Your task to perform on an android device: When is my next appointment? Image 0: 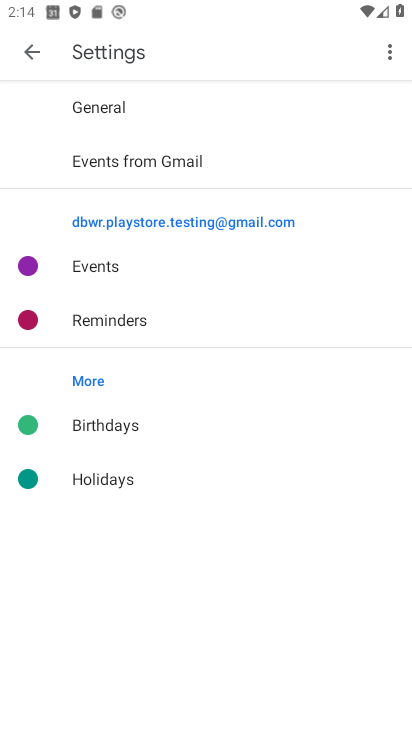
Step 0: press home button
Your task to perform on an android device: When is my next appointment? Image 1: 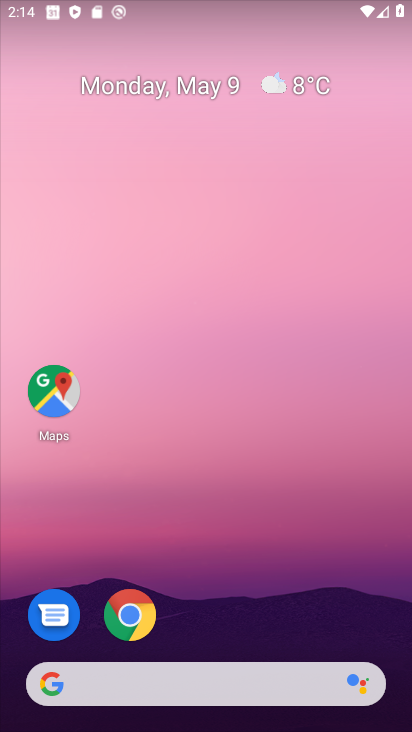
Step 1: drag from (321, 618) to (260, 204)
Your task to perform on an android device: When is my next appointment? Image 2: 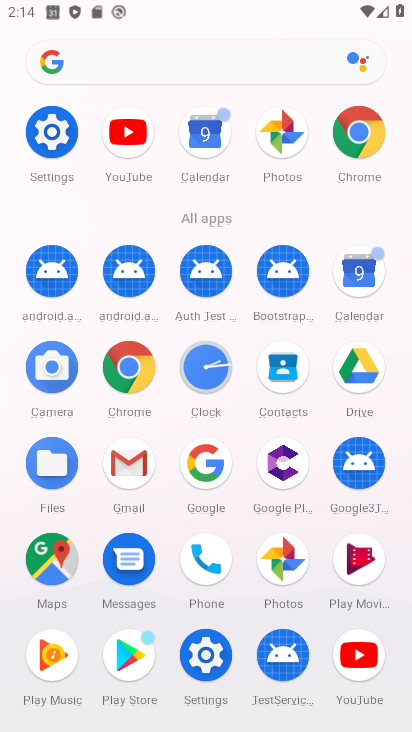
Step 2: click (206, 126)
Your task to perform on an android device: When is my next appointment? Image 3: 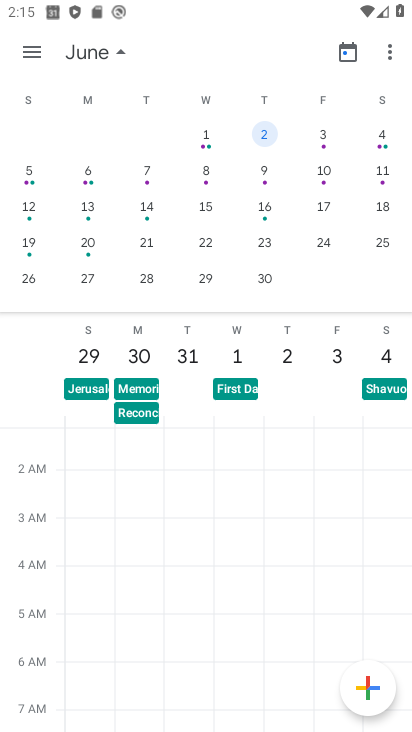
Step 3: click (34, 62)
Your task to perform on an android device: When is my next appointment? Image 4: 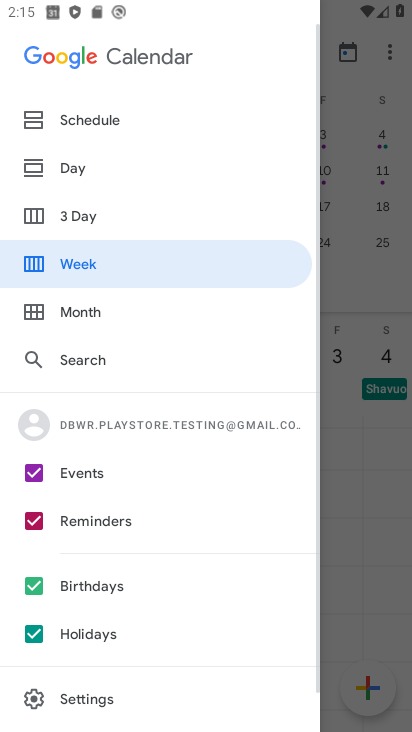
Step 4: click (98, 114)
Your task to perform on an android device: When is my next appointment? Image 5: 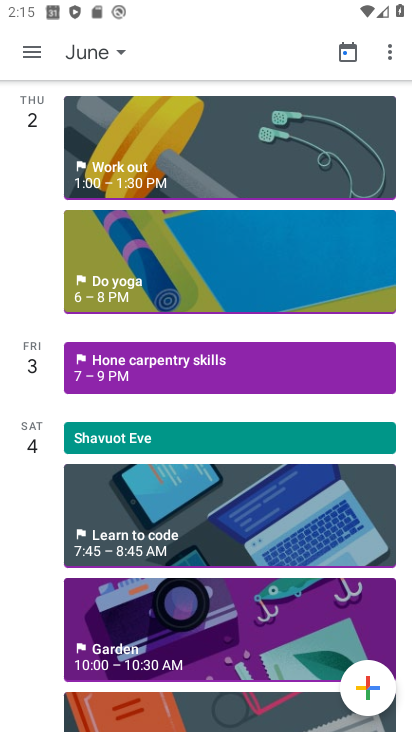
Step 5: click (84, 59)
Your task to perform on an android device: When is my next appointment? Image 6: 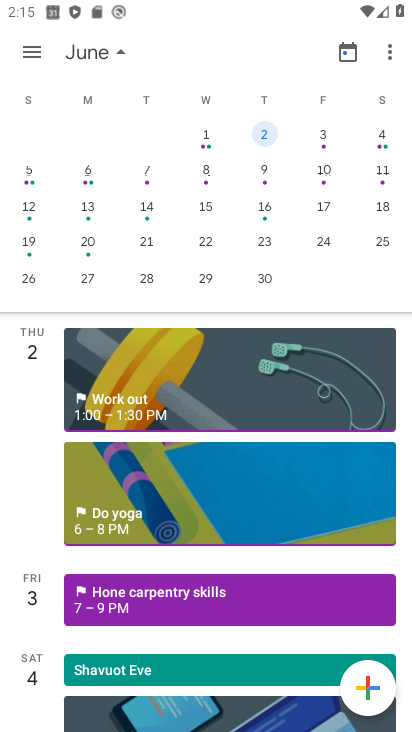
Step 6: drag from (83, 178) to (411, 228)
Your task to perform on an android device: When is my next appointment? Image 7: 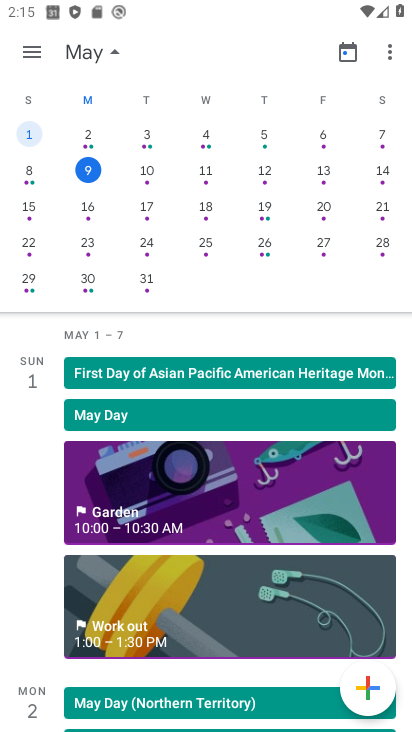
Step 7: click (92, 177)
Your task to perform on an android device: When is my next appointment? Image 8: 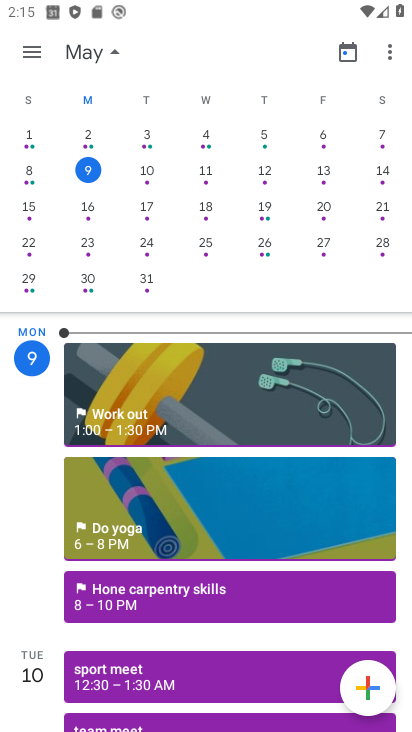
Step 8: click (108, 64)
Your task to perform on an android device: When is my next appointment? Image 9: 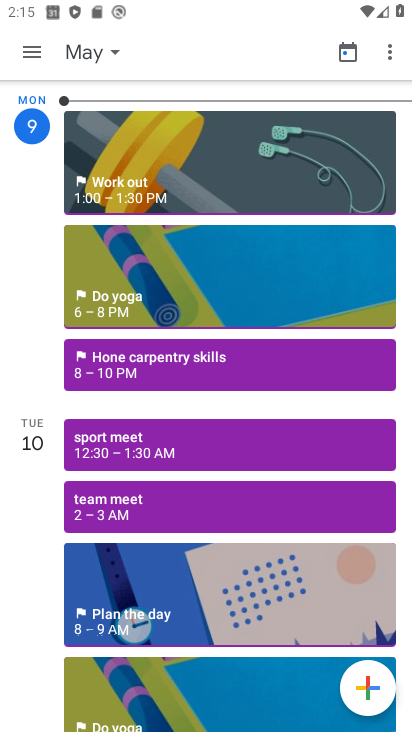
Step 9: task complete